Your task to perform on an android device: Show me popular games on the Play Store Image 0: 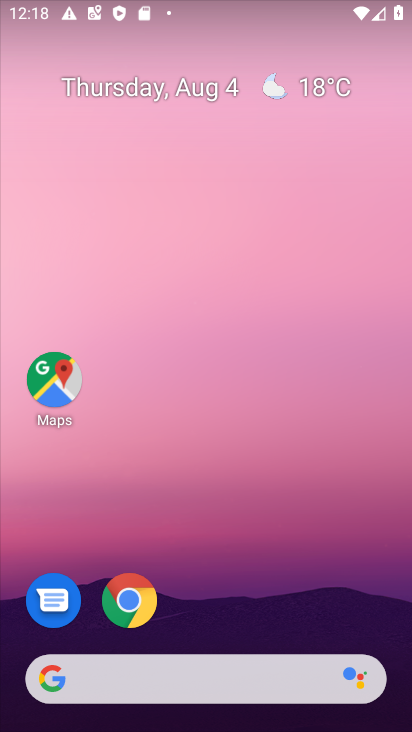
Step 0: press home button
Your task to perform on an android device: Show me popular games on the Play Store Image 1: 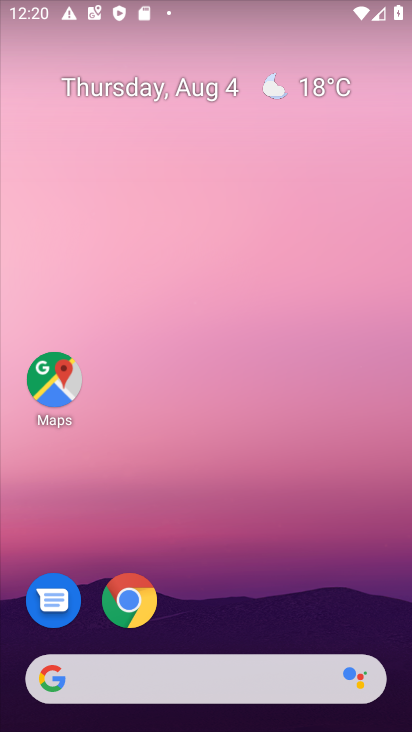
Step 1: drag from (152, 668) to (302, 18)
Your task to perform on an android device: Show me popular games on the Play Store Image 2: 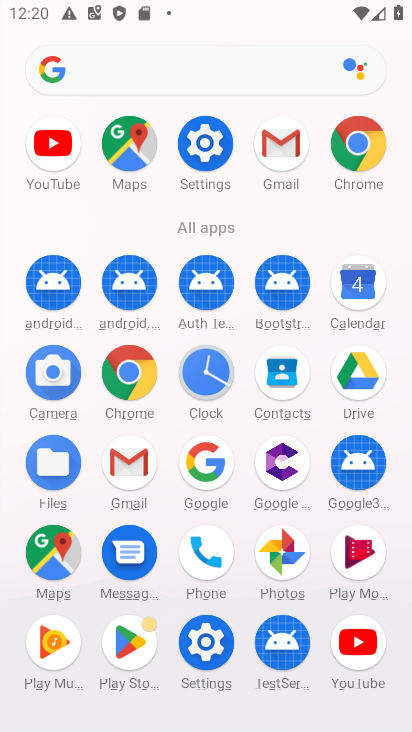
Step 2: click (128, 644)
Your task to perform on an android device: Show me popular games on the Play Store Image 3: 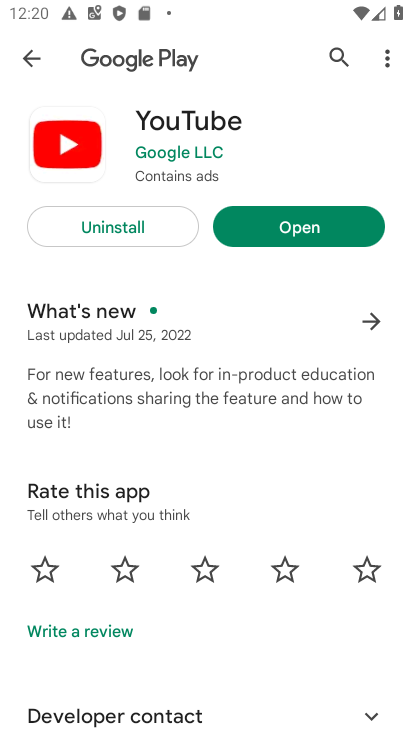
Step 3: click (37, 52)
Your task to perform on an android device: Show me popular games on the Play Store Image 4: 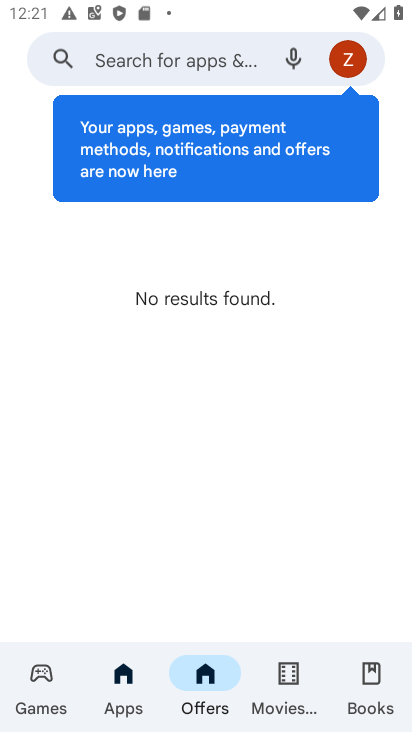
Step 4: click (19, 693)
Your task to perform on an android device: Show me popular games on the Play Store Image 5: 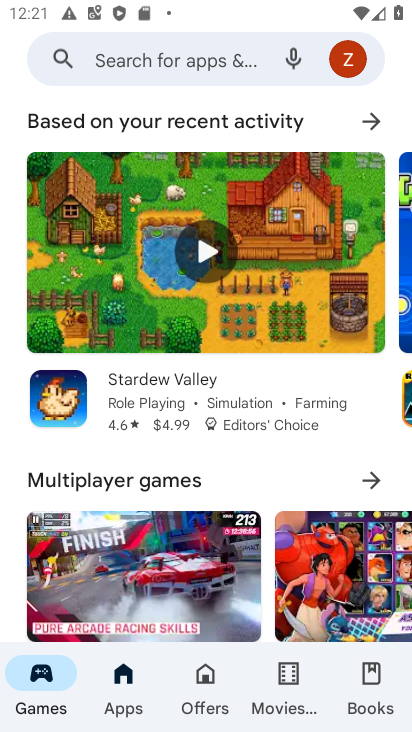
Step 5: task complete